Your task to perform on an android device: Open calendar and show me the third week of next month Image 0: 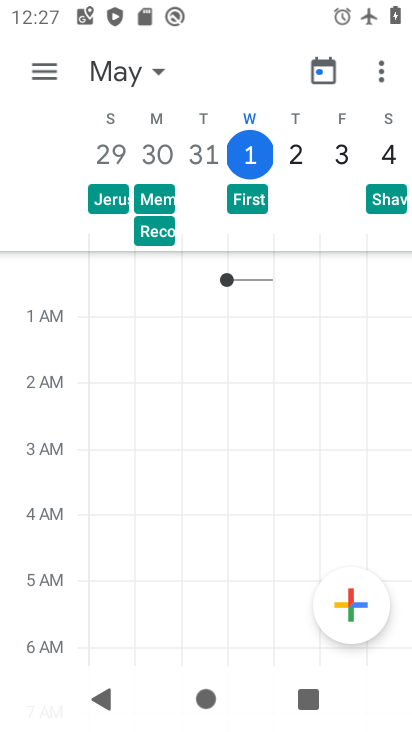
Step 0: press back button
Your task to perform on an android device: Open calendar and show me the third week of next month Image 1: 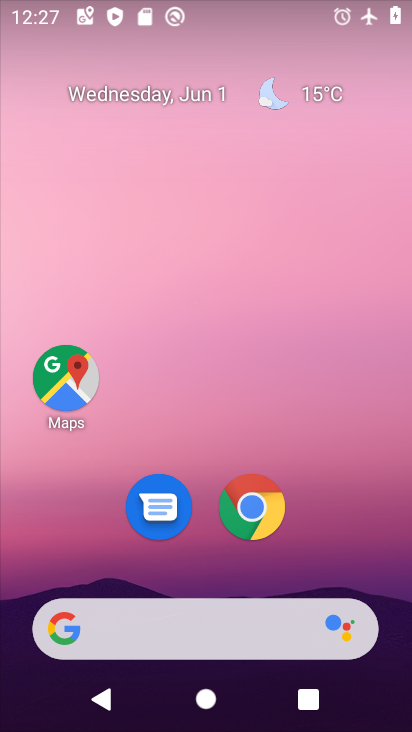
Step 1: drag from (298, 547) to (247, 66)
Your task to perform on an android device: Open calendar and show me the third week of next month Image 2: 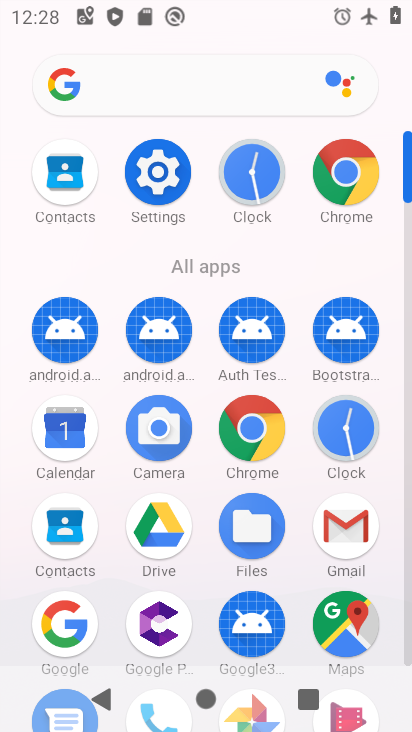
Step 2: click (67, 430)
Your task to perform on an android device: Open calendar and show me the third week of next month Image 3: 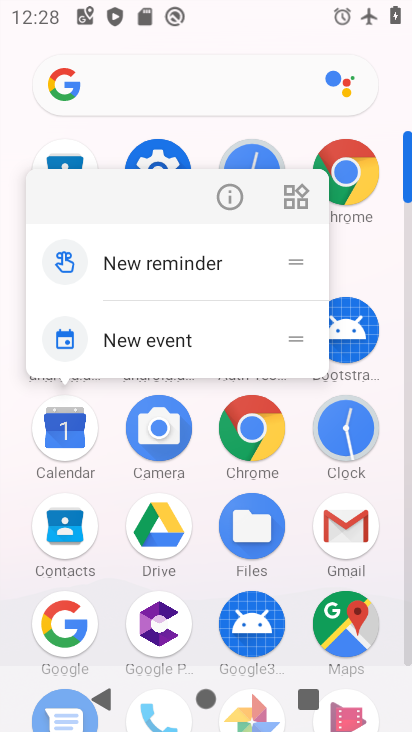
Step 3: click (67, 431)
Your task to perform on an android device: Open calendar and show me the third week of next month Image 4: 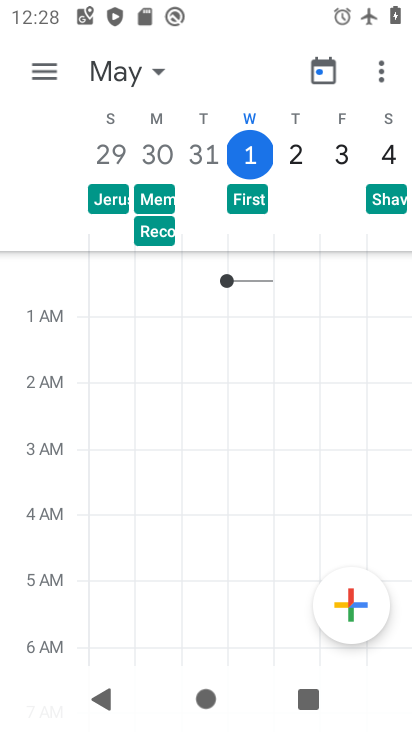
Step 4: click (326, 75)
Your task to perform on an android device: Open calendar and show me the third week of next month Image 5: 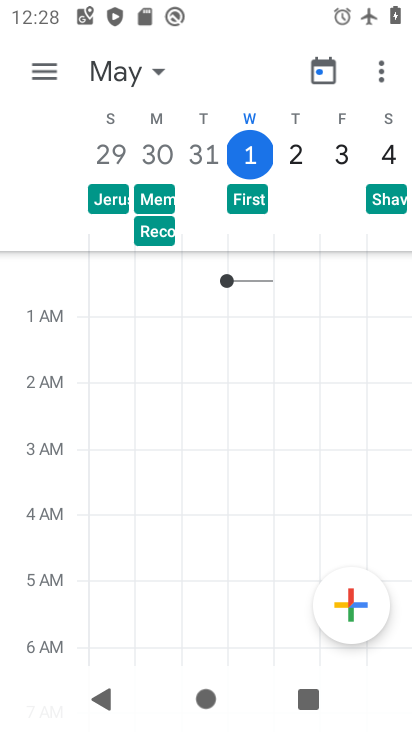
Step 5: click (152, 73)
Your task to perform on an android device: Open calendar and show me the third week of next month Image 6: 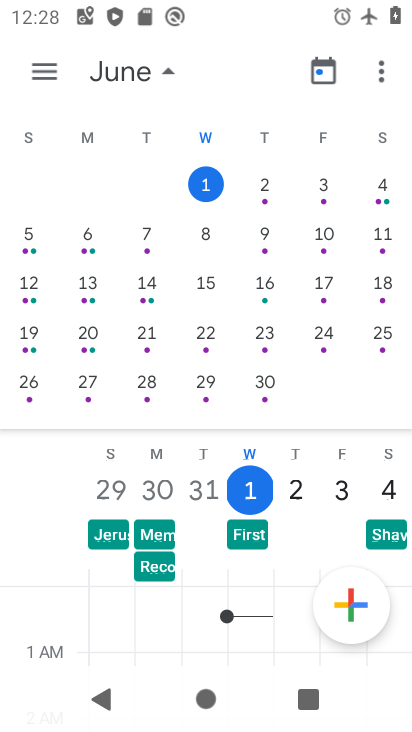
Step 6: drag from (394, 244) to (7, 260)
Your task to perform on an android device: Open calendar and show me the third week of next month Image 7: 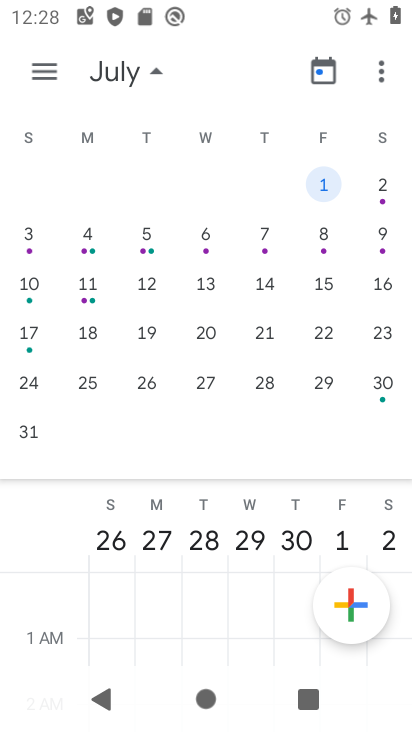
Step 7: click (87, 323)
Your task to perform on an android device: Open calendar and show me the third week of next month Image 8: 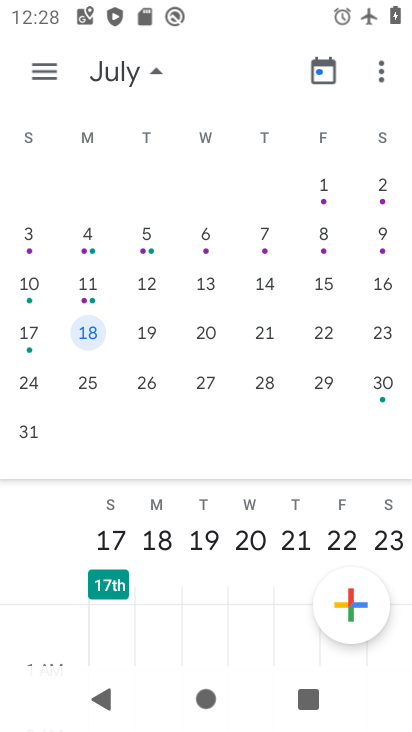
Step 8: click (46, 72)
Your task to perform on an android device: Open calendar and show me the third week of next month Image 9: 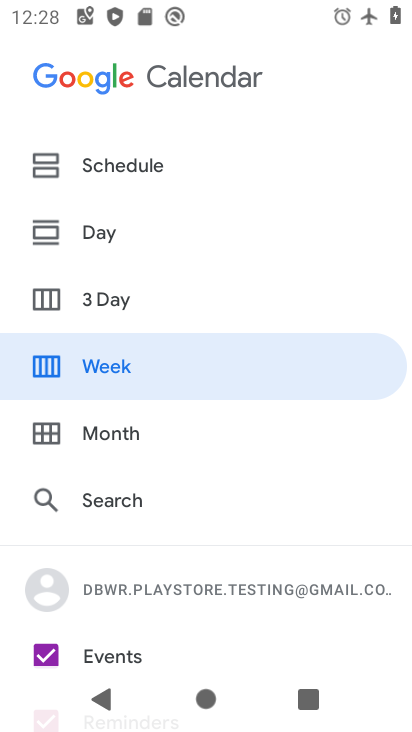
Step 9: click (101, 355)
Your task to perform on an android device: Open calendar and show me the third week of next month Image 10: 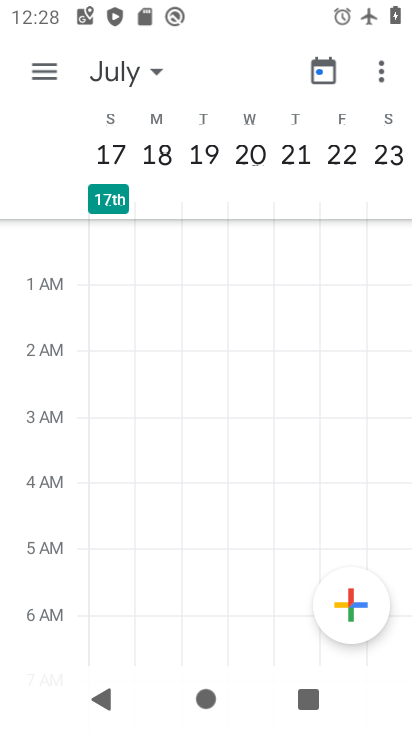
Step 10: task complete